Your task to perform on an android device: move a message to another label in the gmail app Image 0: 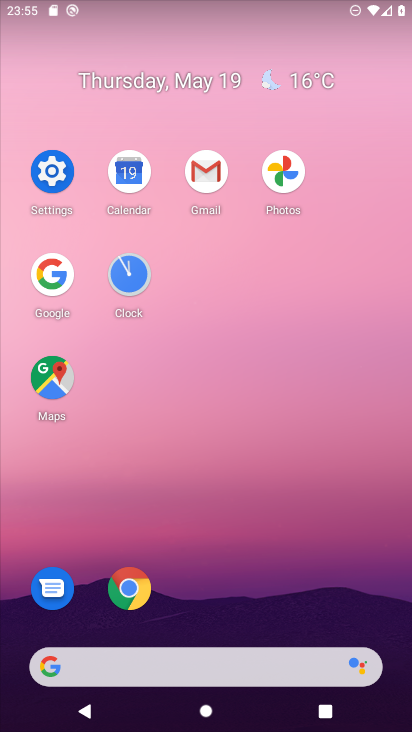
Step 0: click (202, 191)
Your task to perform on an android device: move a message to another label in the gmail app Image 1: 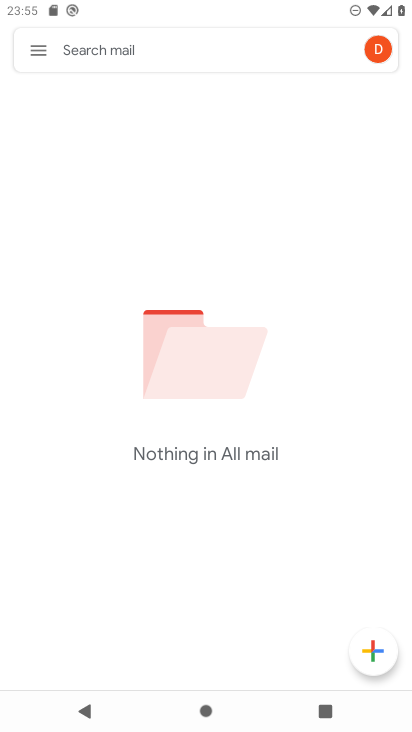
Step 1: click (37, 45)
Your task to perform on an android device: move a message to another label in the gmail app Image 2: 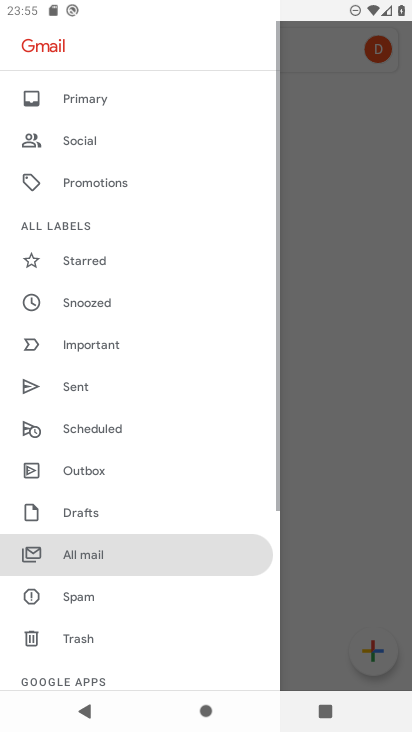
Step 2: click (122, 550)
Your task to perform on an android device: move a message to another label in the gmail app Image 3: 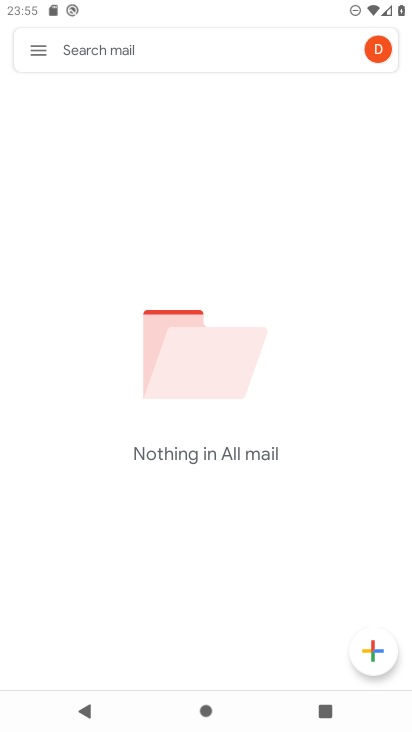
Step 3: task complete